Your task to perform on an android device: toggle pop-ups in chrome Image 0: 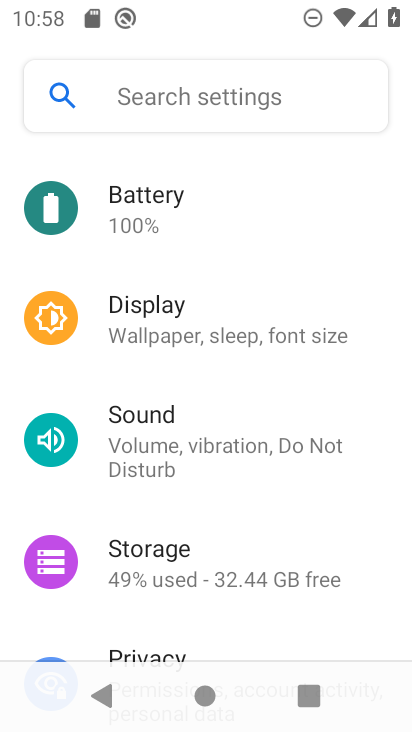
Step 0: press home button
Your task to perform on an android device: toggle pop-ups in chrome Image 1: 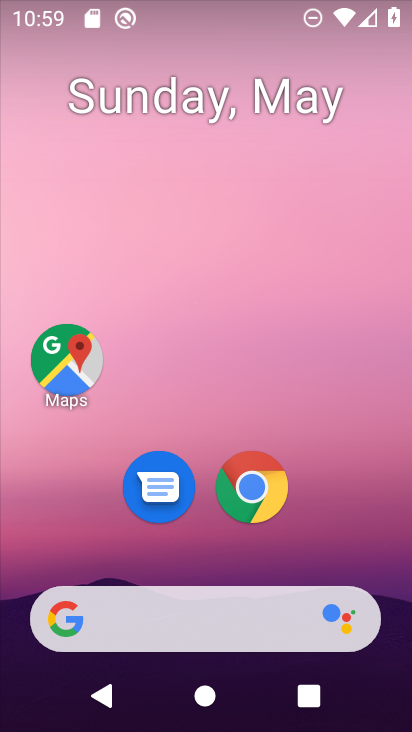
Step 1: drag from (389, 557) to (329, 172)
Your task to perform on an android device: toggle pop-ups in chrome Image 2: 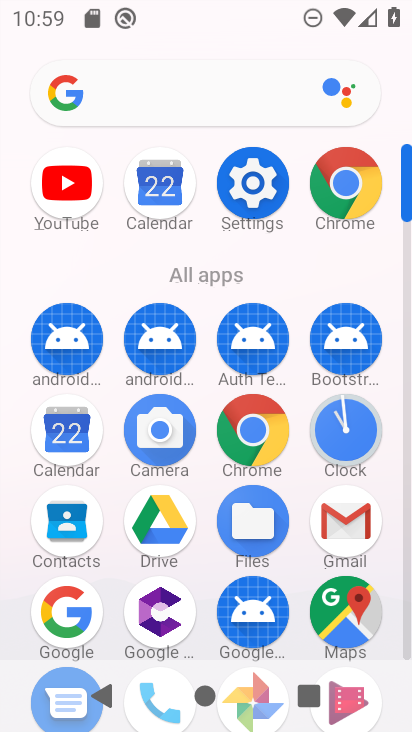
Step 2: click (334, 187)
Your task to perform on an android device: toggle pop-ups in chrome Image 3: 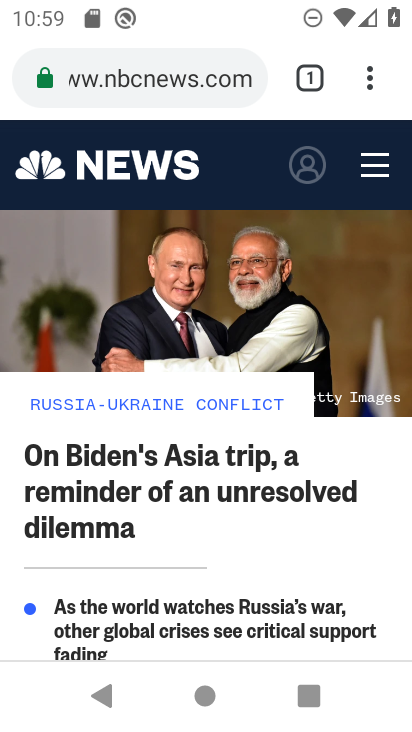
Step 3: click (361, 97)
Your task to perform on an android device: toggle pop-ups in chrome Image 4: 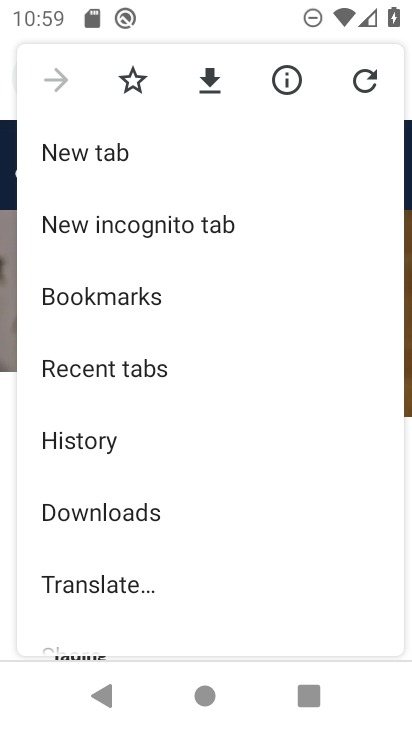
Step 4: drag from (268, 570) to (243, 230)
Your task to perform on an android device: toggle pop-ups in chrome Image 5: 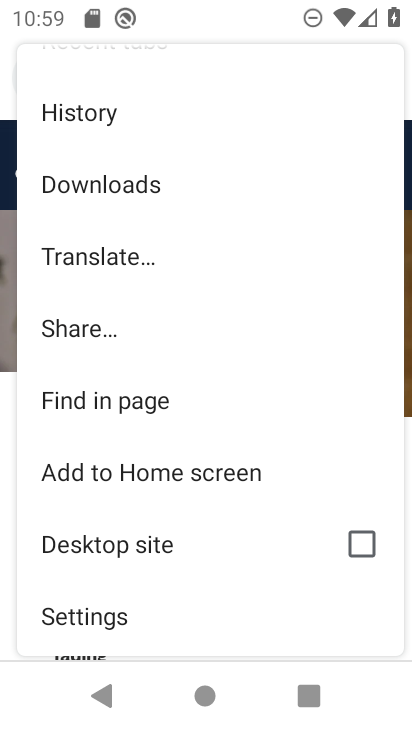
Step 5: click (182, 608)
Your task to perform on an android device: toggle pop-ups in chrome Image 6: 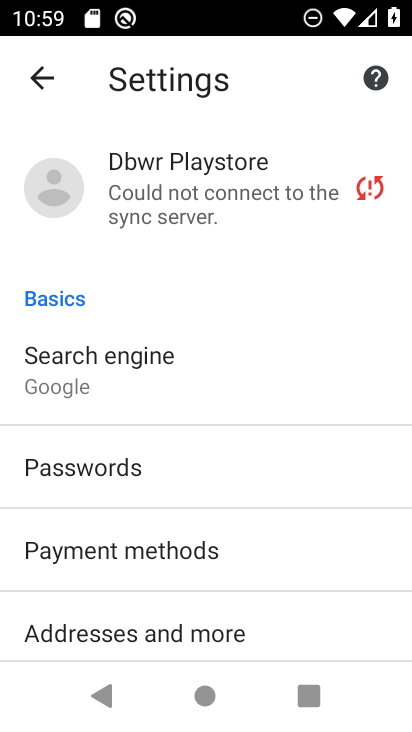
Step 6: drag from (223, 651) to (198, 191)
Your task to perform on an android device: toggle pop-ups in chrome Image 7: 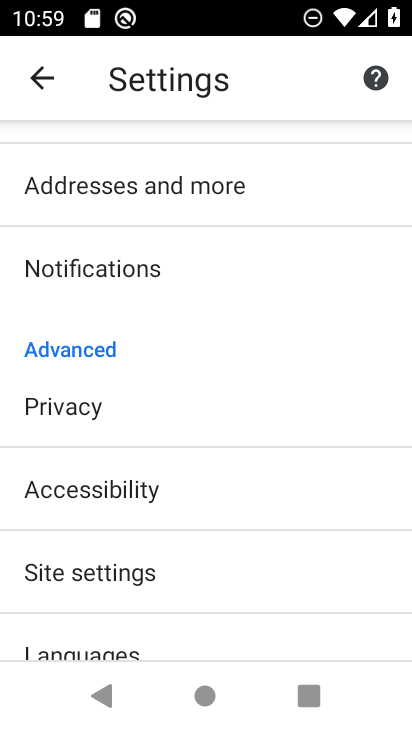
Step 7: click (212, 580)
Your task to perform on an android device: toggle pop-ups in chrome Image 8: 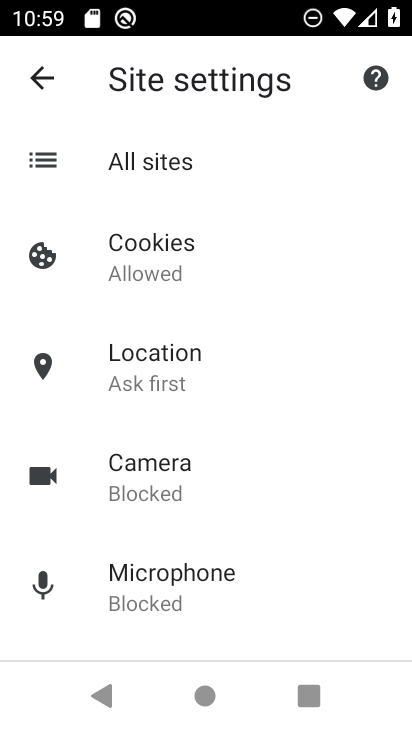
Step 8: drag from (235, 610) to (161, 202)
Your task to perform on an android device: toggle pop-ups in chrome Image 9: 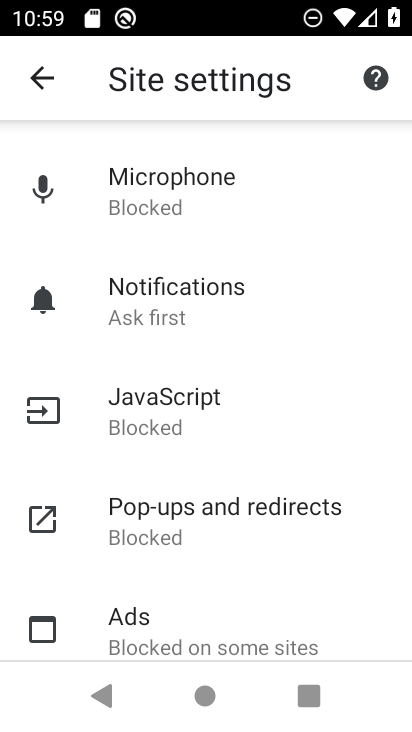
Step 9: click (216, 539)
Your task to perform on an android device: toggle pop-ups in chrome Image 10: 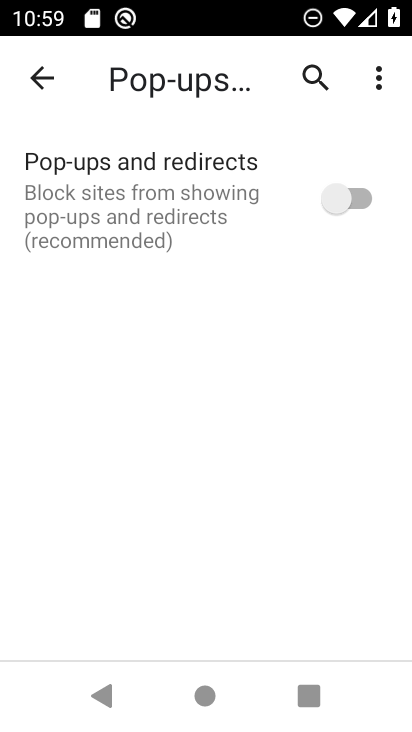
Step 10: click (369, 189)
Your task to perform on an android device: toggle pop-ups in chrome Image 11: 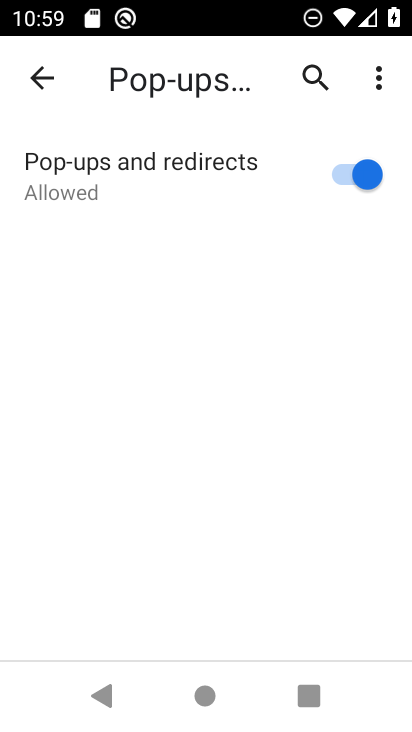
Step 11: task complete